Your task to perform on an android device: read, delete, or share a saved page in the chrome app Image 0: 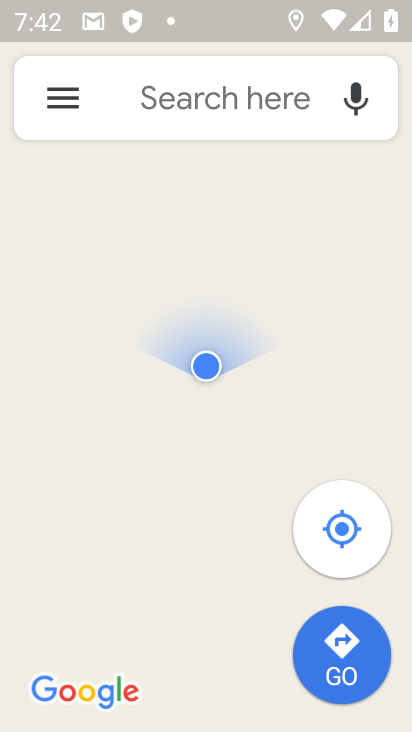
Step 0: press home button
Your task to perform on an android device: read, delete, or share a saved page in the chrome app Image 1: 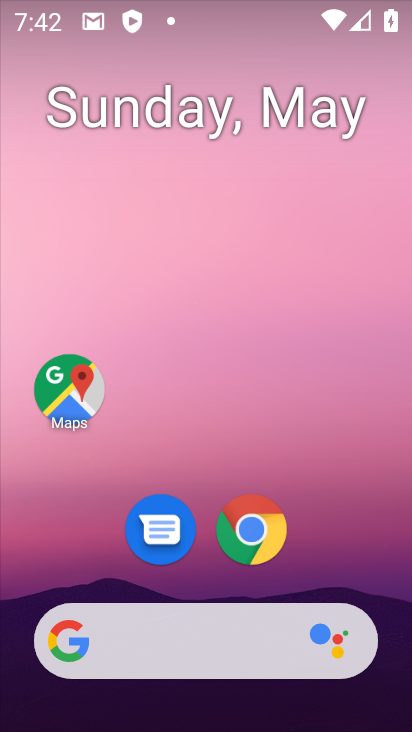
Step 1: drag from (370, 565) to (333, 175)
Your task to perform on an android device: read, delete, or share a saved page in the chrome app Image 2: 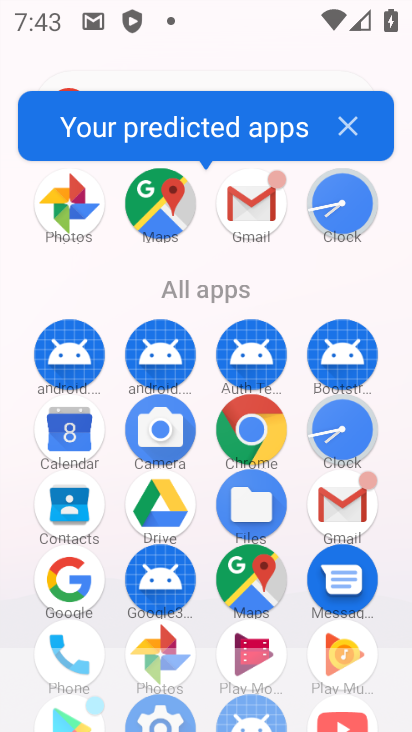
Step 2: click (290, 443)
Your task to perform on an android device: read, delete, or share a saved page in the chrome app Image 3: 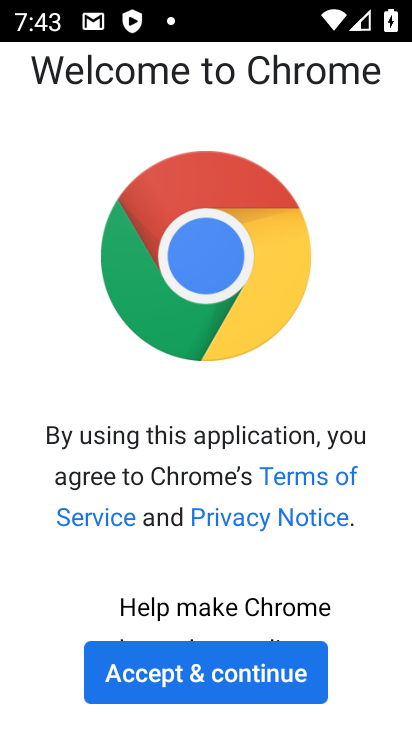
Step 3: click (239, 683)
Your task to perform on an android device: read, delete, or share a saved page in the chrome app Image 4: 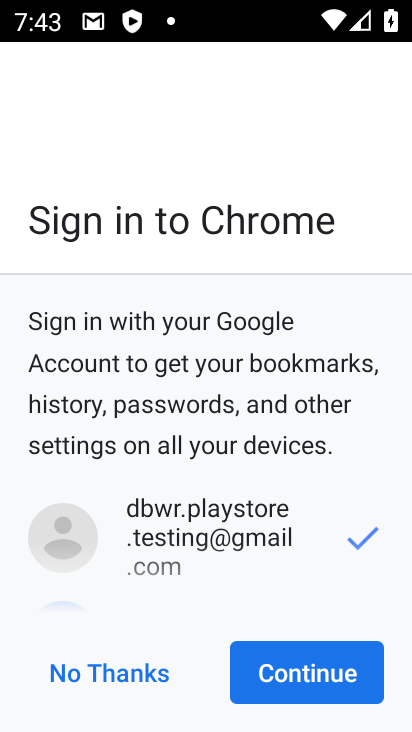
Step 4: click (289, 675)
Your task to perform on an android device: read, delete, or share a saved page in the chrome app Image 5: 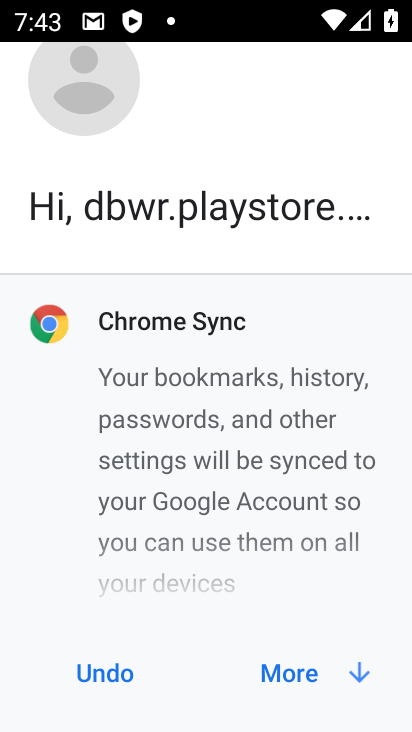
Step 5: click (312, 675)
Your task to perform on an android device: read, delete, or share a saved page in the chrome app Image 6: 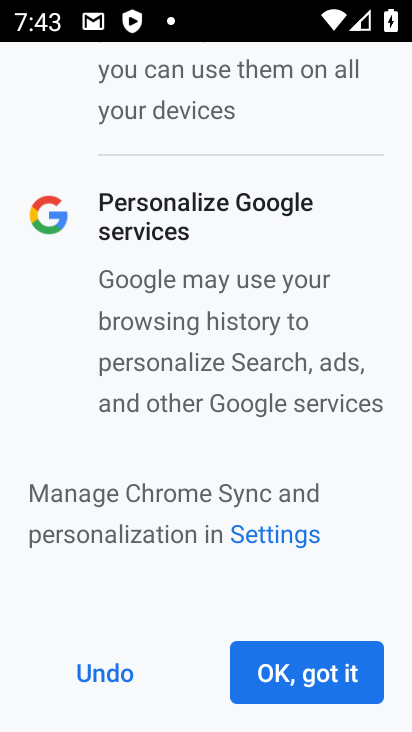
Step 6: click (312, 675)
Your task to perform on an android device: read, delete, or share a saved page in the chrome app Image 7: 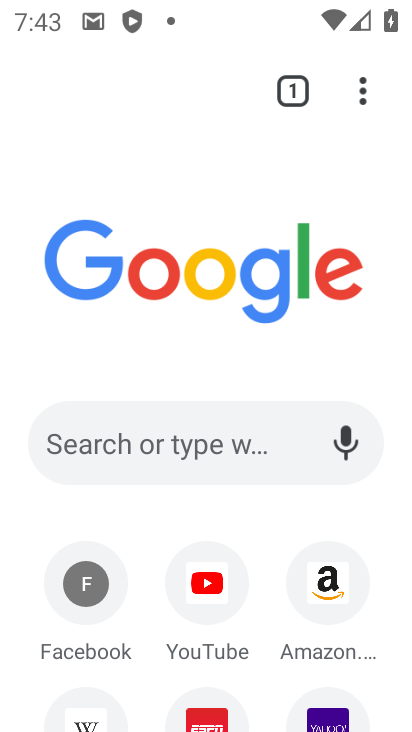
Step 7: click (369, 113)
Your task to perform on an android device: read, delete, or share a saved page in the chrome app Image 8: 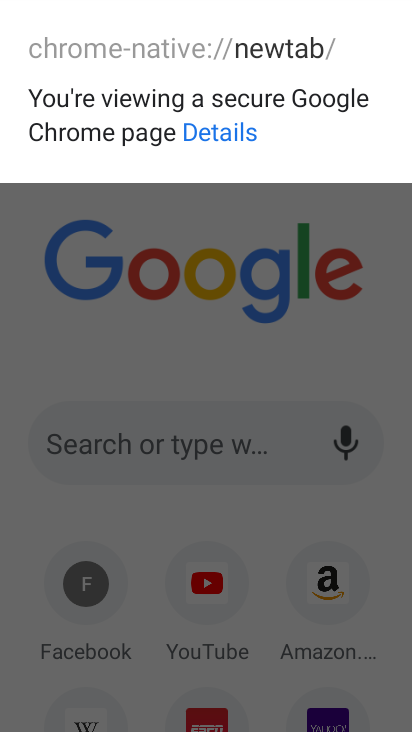
Step 8: click (346, 348)
Your task to perform on an android device: read, delete, or share a saved page in the chrome app Image 9: 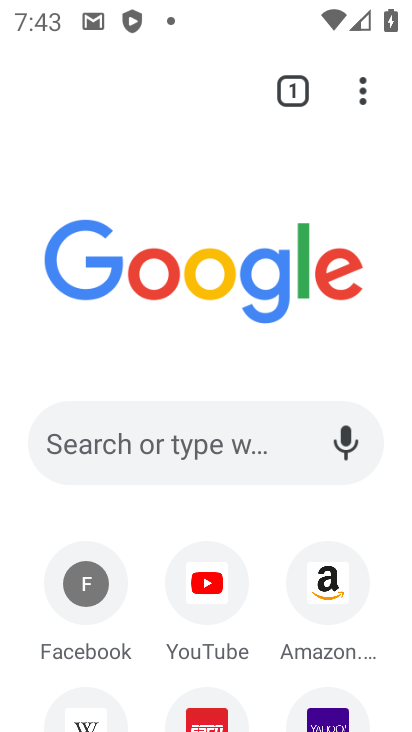
Step 9: drag from (366, 99) to (185, 343)
Your task to perform on an android device: read, delete, or share a saved page in the chrome app Image 10: 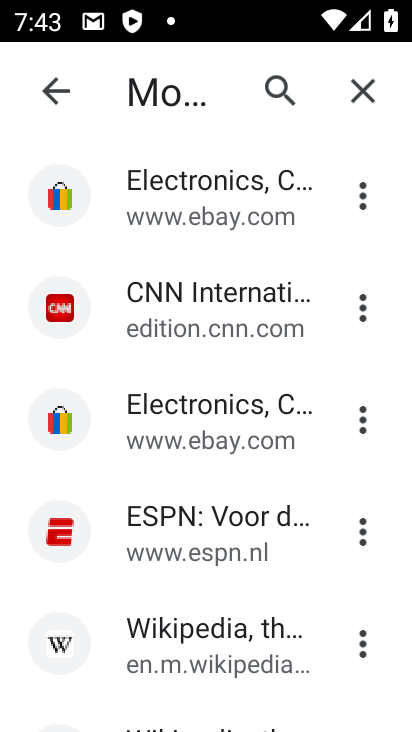
Step 10: click (364, 195)
Your task to perform on an android device: read, delete, or share a saved page in the chrome app Image 11: 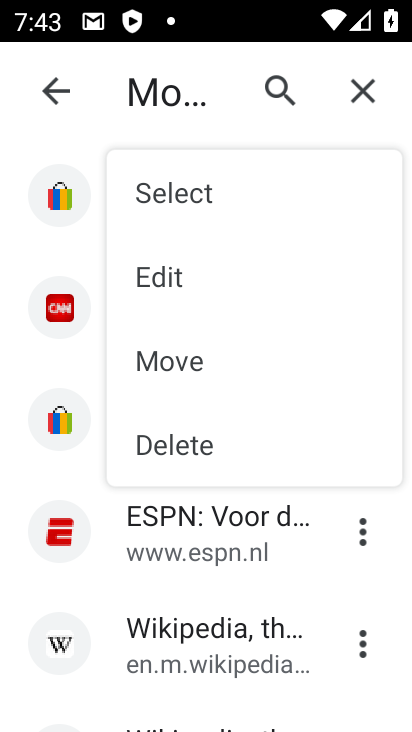
Step 11: click (196, 446)
Your task to perform on an android device: read, delete, or share a saved page in the chrome app Image 12: 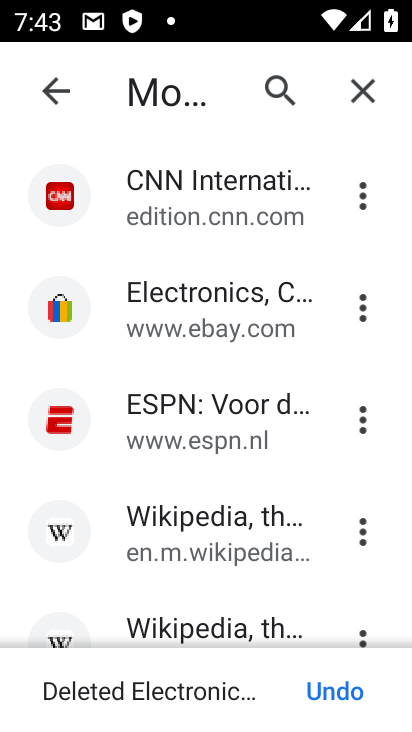
Step 12: task complete